Your task to perform on an android device: turn on wifi Image 0: 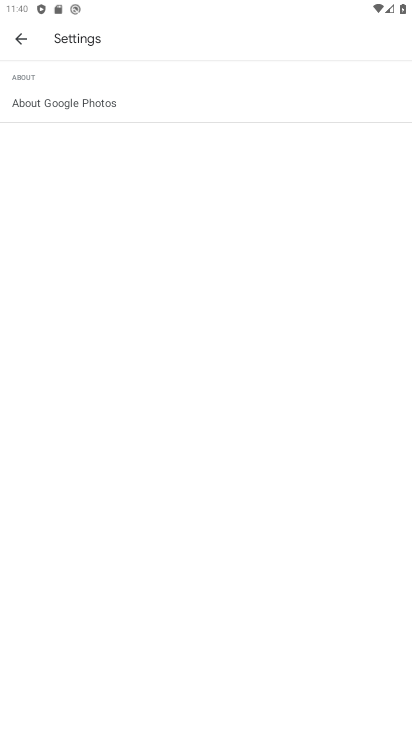
Step 0: press home button
Your task to perform on an android device: turn on wifi Image 1: 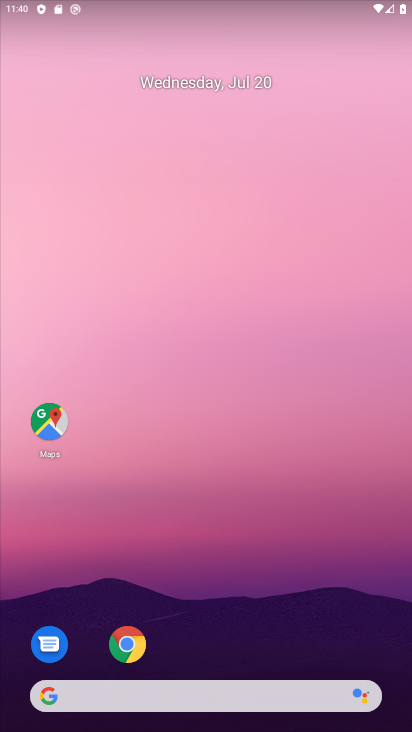
Step 1: drag from (325, 628) to (324, 47)
Your task to perform on an android device: turn on wifi Image 2: 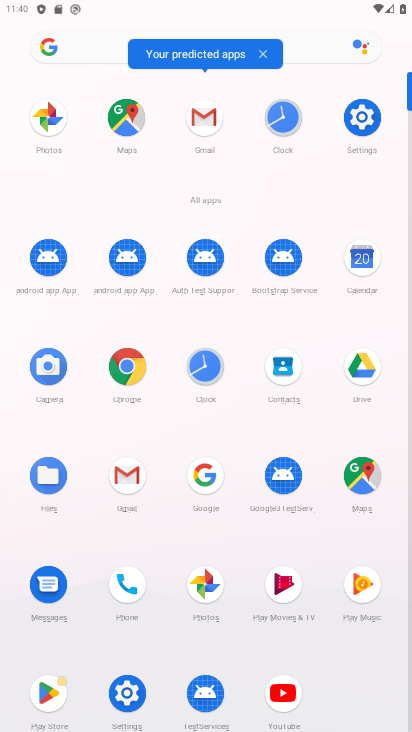
Step 2: click (126, 696)
Your task to perform on an android device: turn on wifi Image 3: 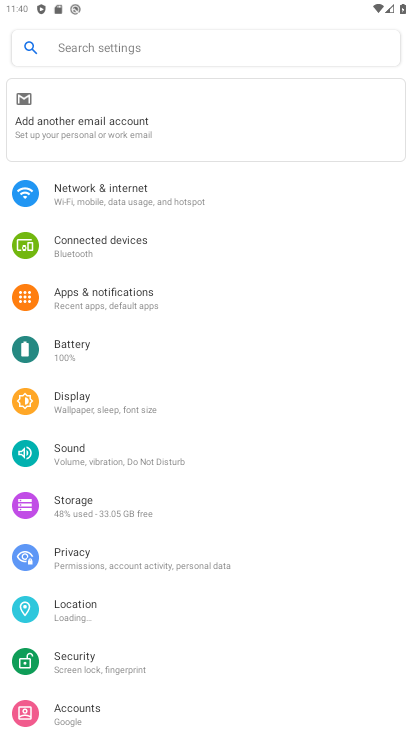
Step 3: click (83, 185)
Your task to perform on an android device: turn on wifi Image 4: 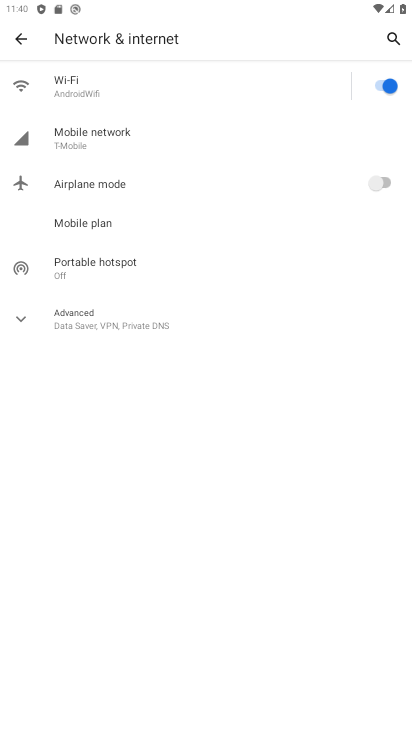
Step 4: task complete